Your task to perform on an android device: search for starred emails in the gmail app Image 0: 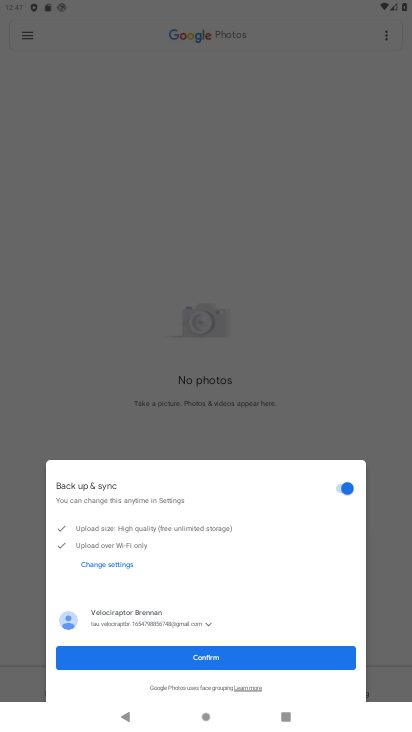
Step 0: press home button
Your task to perform on an android device: search for starred emails in the gmail app Image 1: 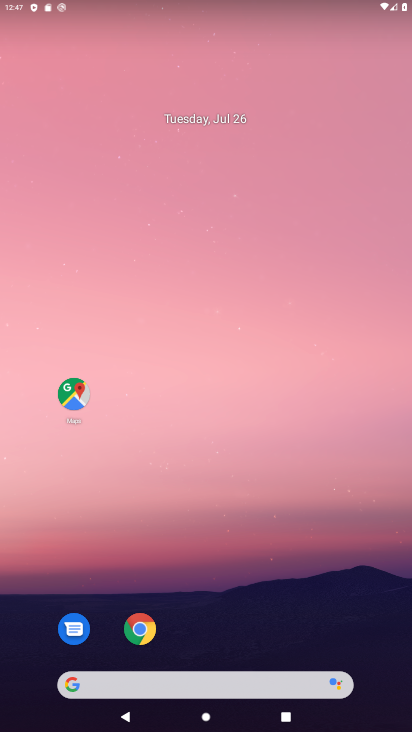
Step 1: drag from (379, 705) to (248, 95)
Your task to perform on an android device: search for starred emails in the gmail app Image 2: 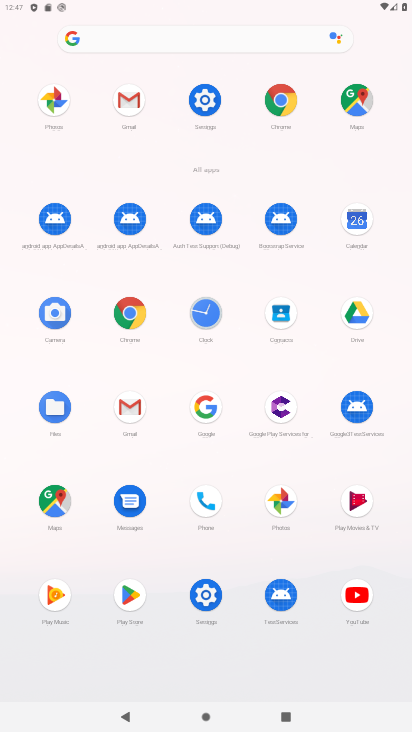
Step 2: click (127, 412)
Your task to perform on an android device: search for starred emails in the gmail app Image 3: 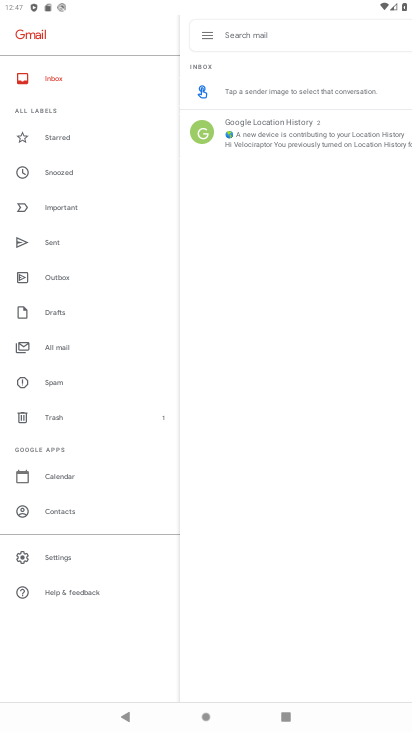
Step 3: click (56, 133)
Your task to perform on an android device: search for starred emails in the gmail app Image 4: 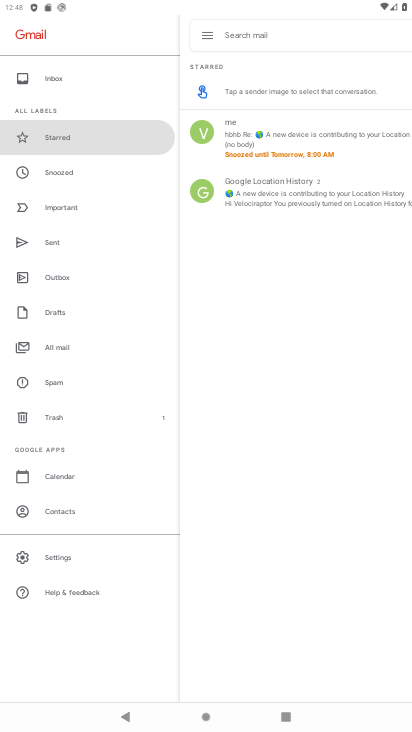
Step 4: task complete